Your task to perform on an android device: Open accessibility settings Image 0: 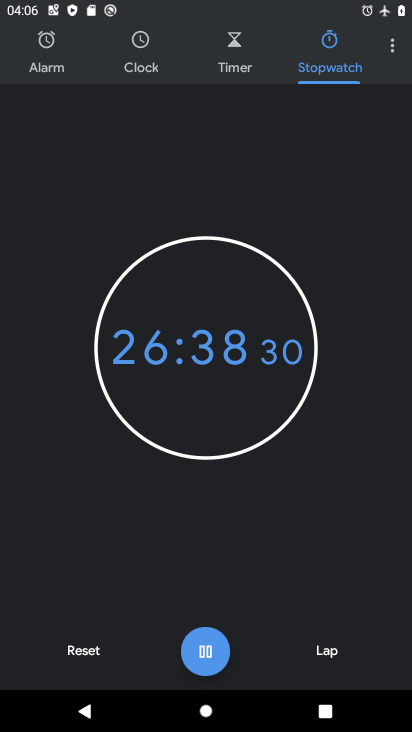
Step 0: press home button
Your task to perform on an android device: Open accessibility settings Image 1: 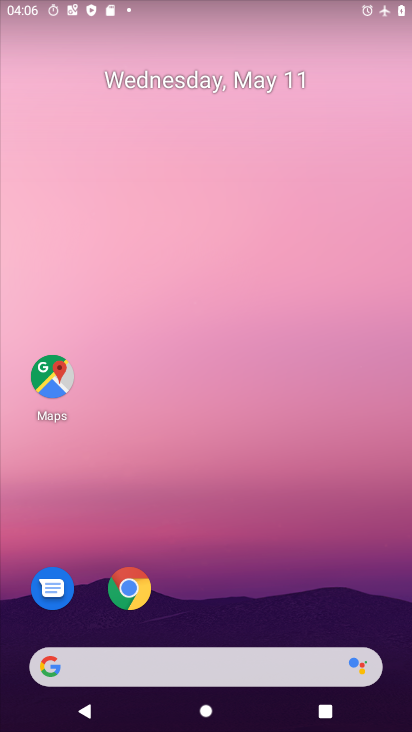
Step 1: drag from (222, 617) to (225, 303)
Your task to perform on an android device: Open accessibility settings Image 2: 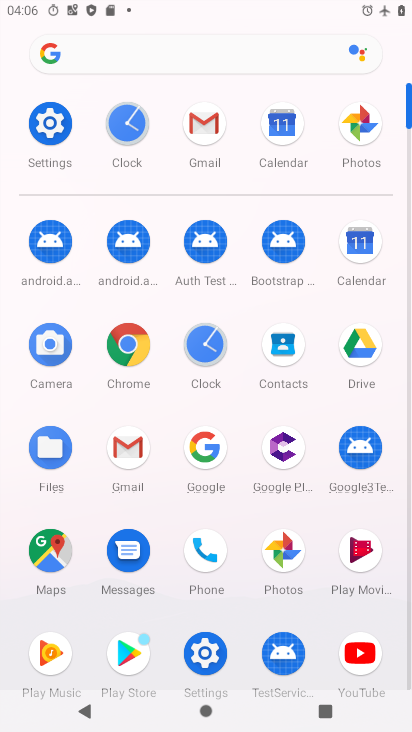
Step 2: click (56, 152)
Your task to perform on an android device: Open accessibility settings Image 3: 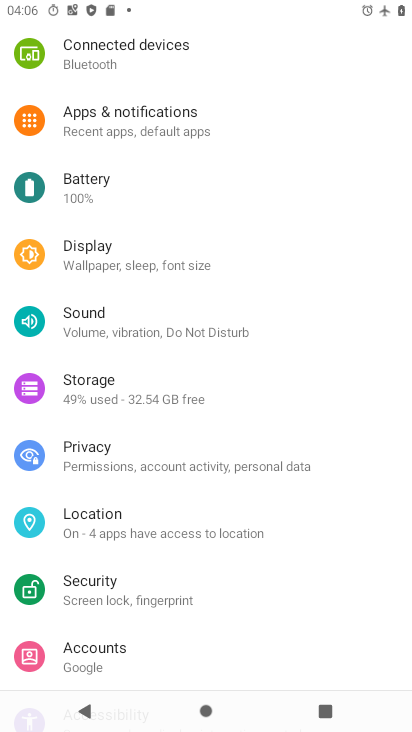
Step 3: drag from (177, 642) to (219, 289)
Your task to perform on an android device: Open accessibility settings Image 4: 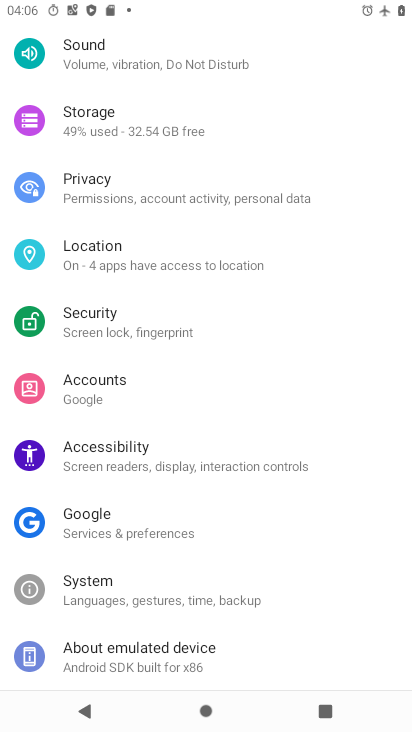
Step 4: click (137, 466)
Your task to perform on an android device: Open accessibility settings Image 5: 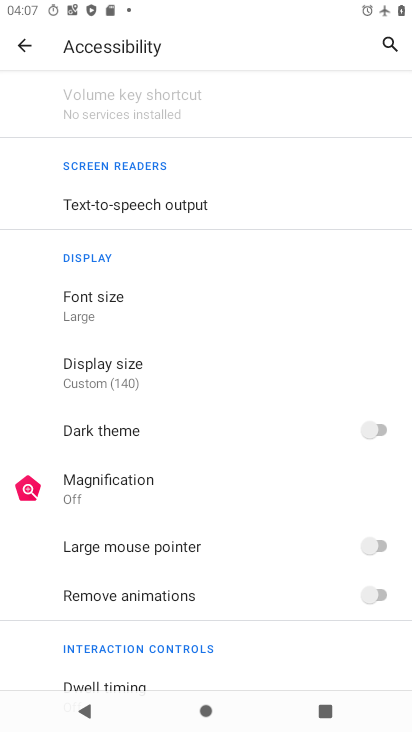
Step 5: task complete